Your task to perform on an android device: Go to internet settings Image 0: 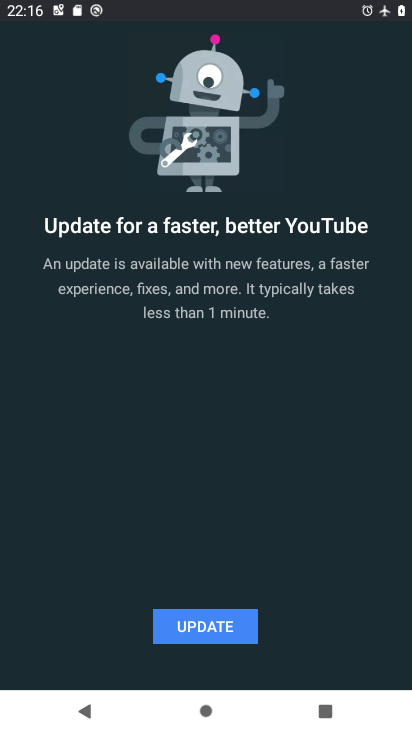
Step 0: press home button
Your task to perform on an android device: Go to internet settings Image 1: 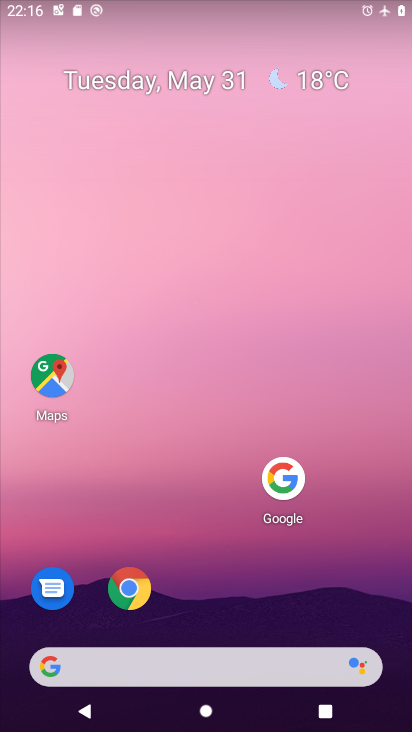
Step 1: click (275, 114)
Your task to perform on an android device: Go to internet settings Image 2: 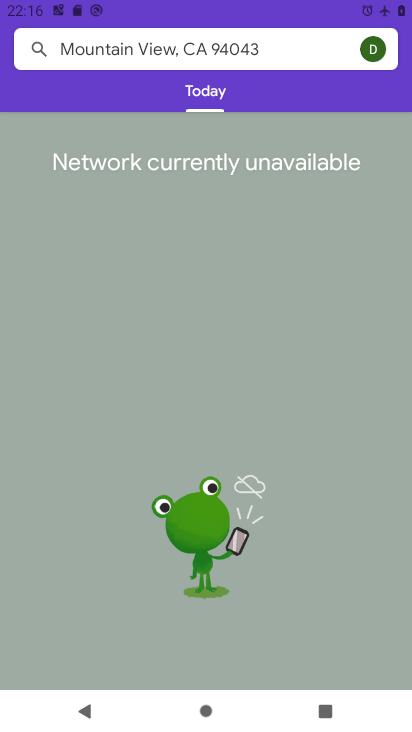
Step 2: press home button
Your task to perform on an android device: Go to internet settings Image 3: 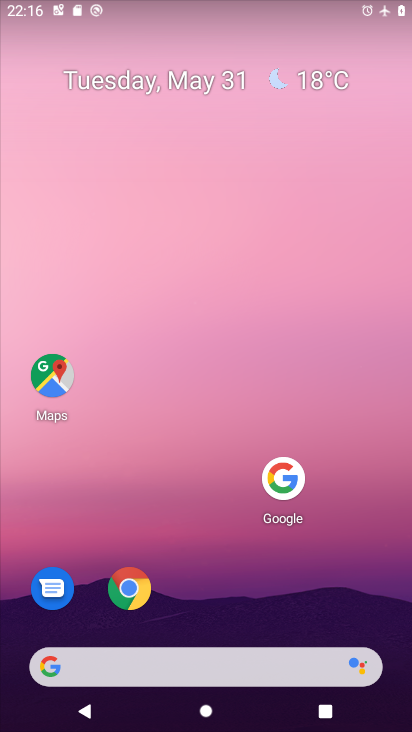
Step 3: drag from (139, 665) to (255, 131)
Your task to perform on an android device: Go to internet settings Image 4: 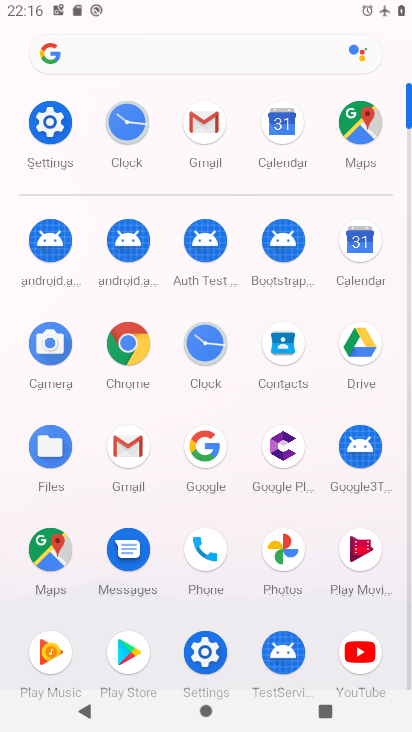
Step 4: click (49, 135)
Your task to perform on an android device: Go to internet settings Image 5: 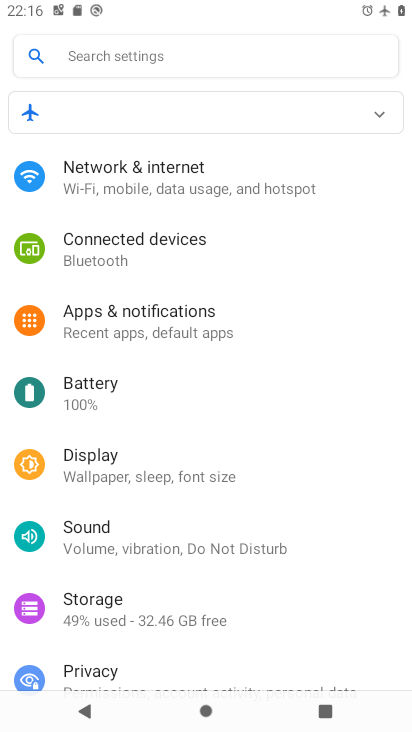
Step 5: click (169, 180)
Your task to perform on an android device: Go to internet settings Image 6: 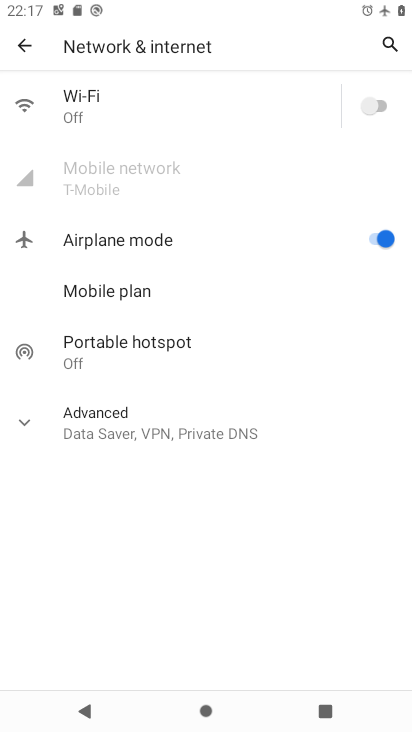
Step 6: task complete